Your task to perform on an android device: empty trash in google photos Image 0: 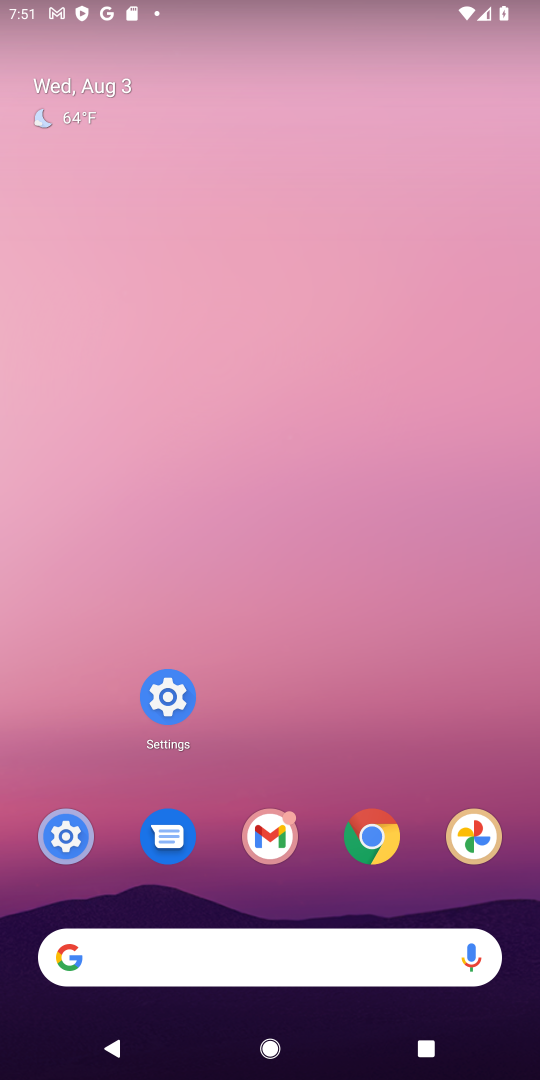
Step 0: drag from (517, 973) to (389, 218)
Your task to perform on an android device: empty trash in google photos Image 1: 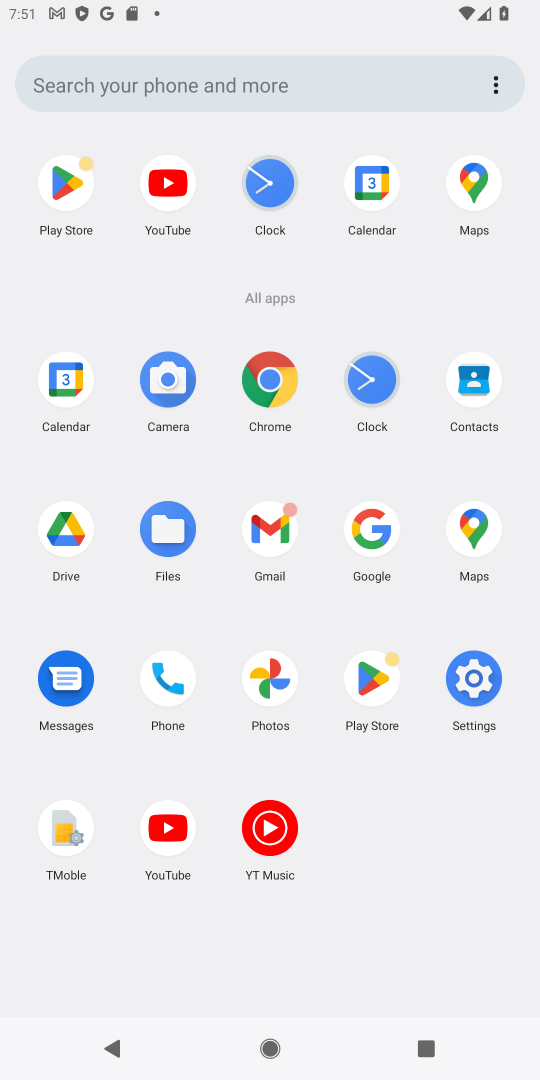
Step 1: click (251, 689)
Your task to perform on an android device: empty trash in google photos Image 2: 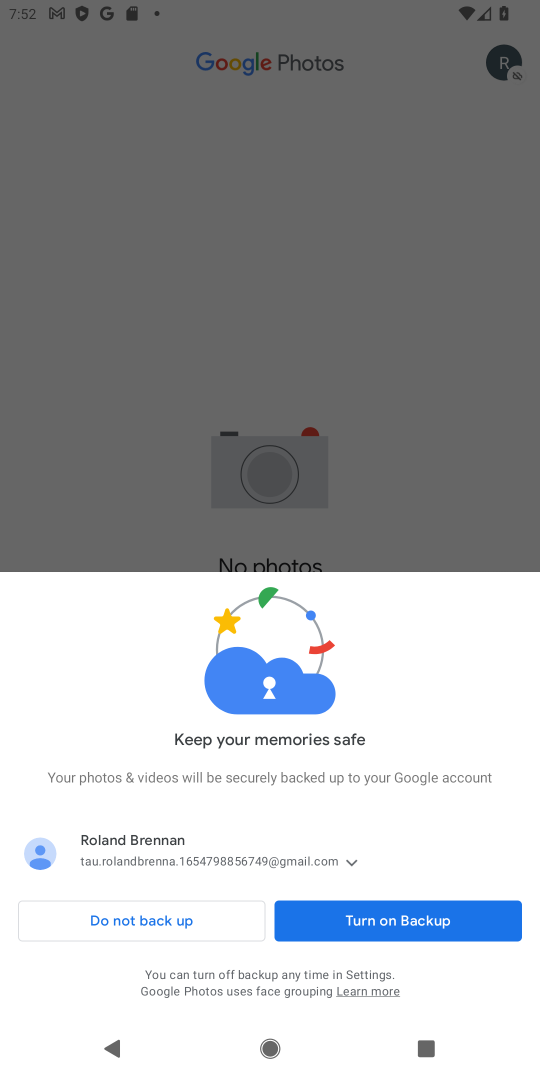
Step 2: press home button
Your task to perform on an android device: empty trash in google photos Image 3: 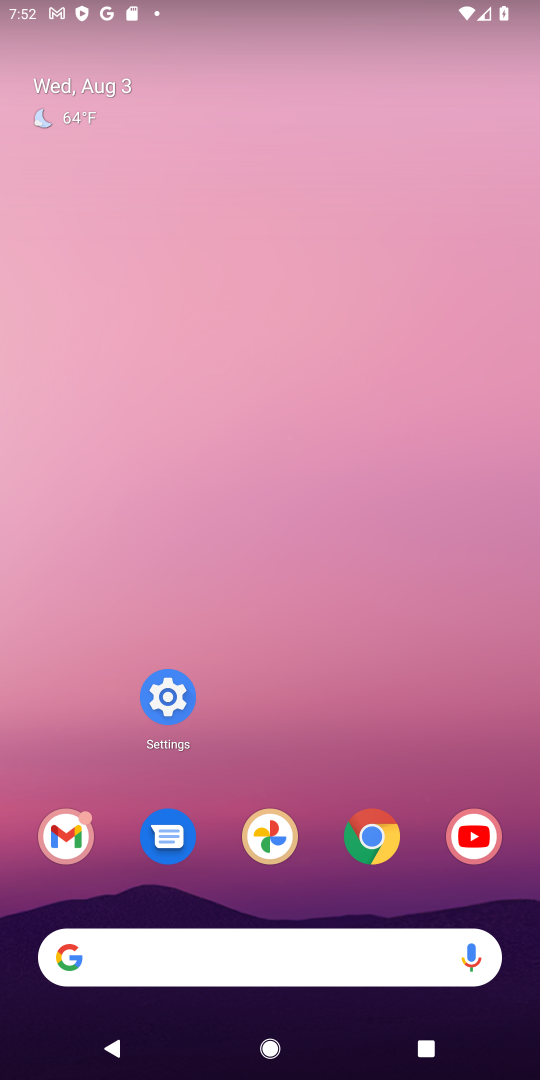
Step 3: click (277, 829)
Your task to perform on an android device: empty trash in google photos Image 4: 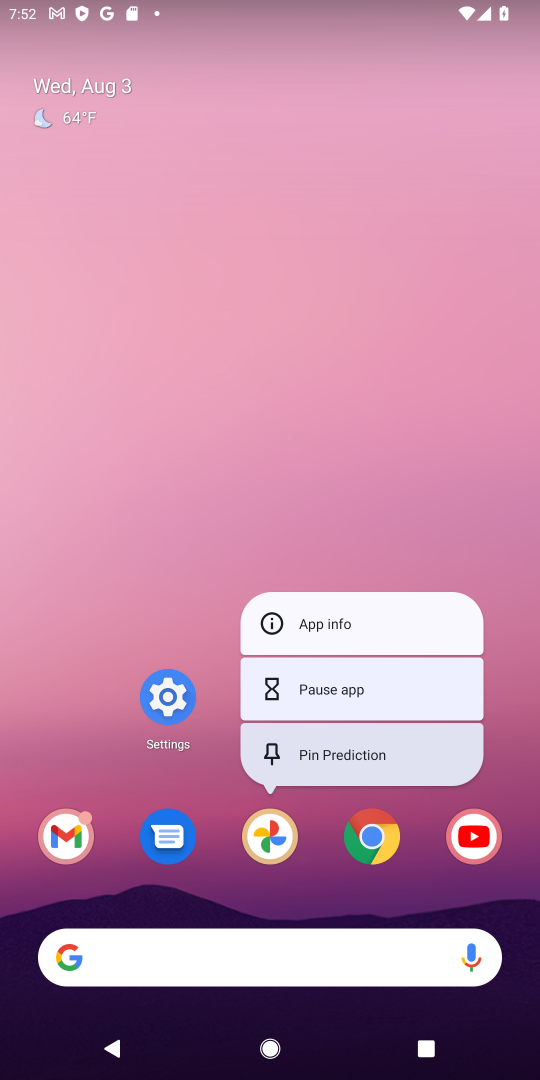
Step 4: click (258, 833)
Your task to perform on an android device: empty trash in google photos Image 5: 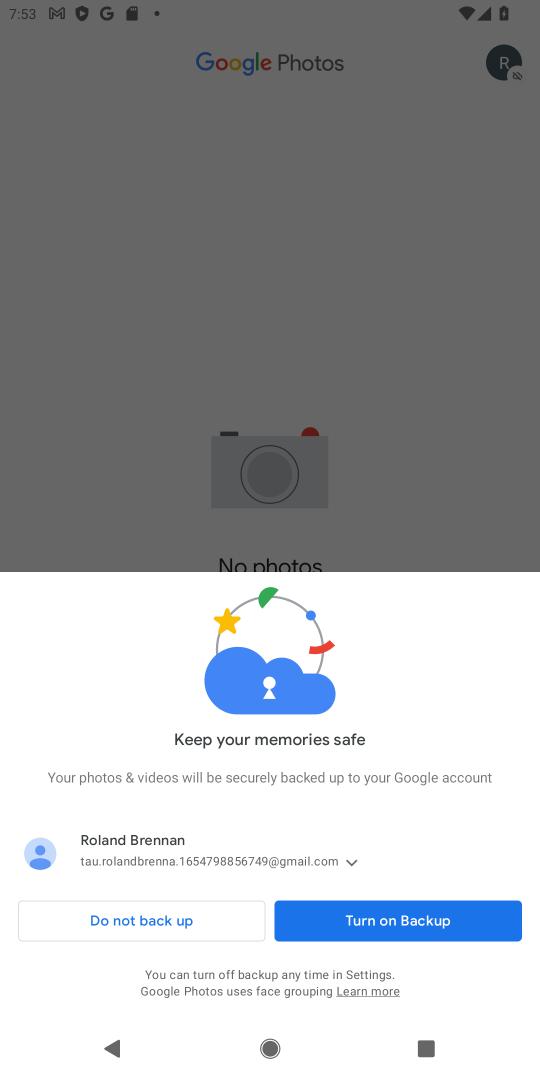
Step 5: task complete